Your task to perform on an android device: open a bookmark in the chrome app Image 0: 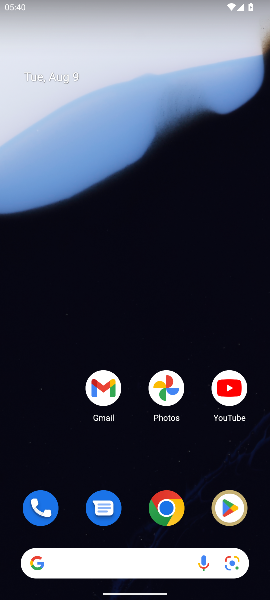
Step 0: click (169, 503)
Your task to perform on an android device: open a bookmark in the chrome app Image 1: 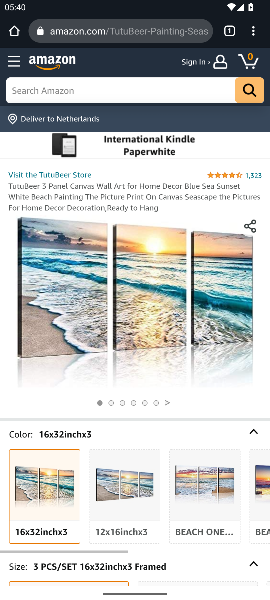
Step 1: click (250, 31)
Your task to perform on an android device: open a bookmark in the chrome app Image 2: 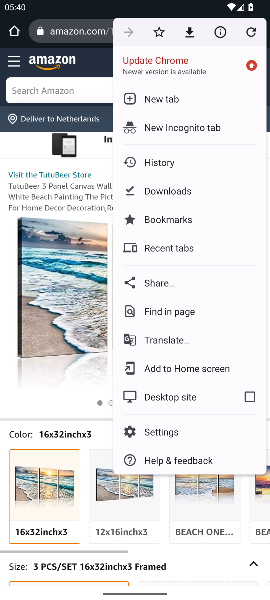
Step 2: click (167, 220)
Your task to perform on an android device: open a bookmark in the chrome app Image 3: 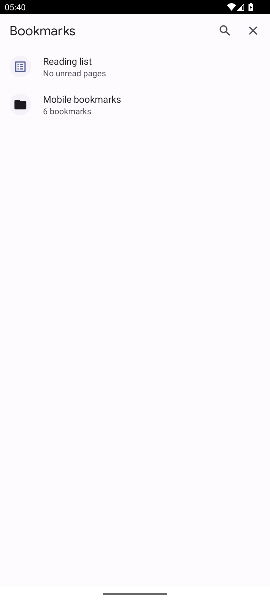
Step 3: click (89, 103)
Your task to perform on an android device: open a bookmark in the chrome app Image 4: 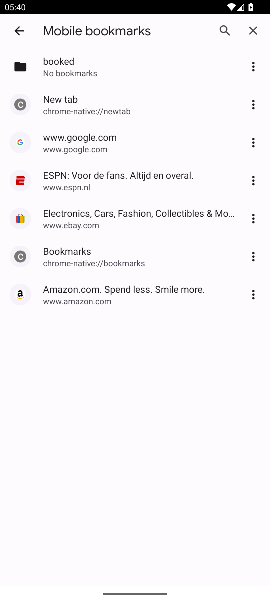
Step 4: click (89, 212)
Your task to perform on an android device: open a bookmark in the chrome app Image 5: 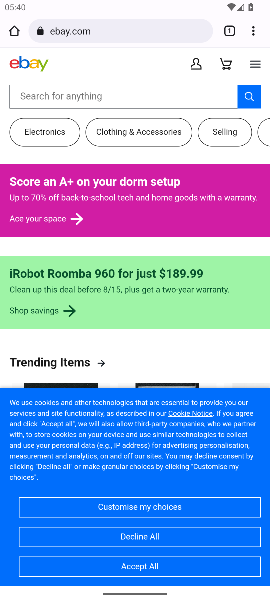
Step 5: task complete